Your task to perform on an android device: Go to Yahoo.com Image 0: 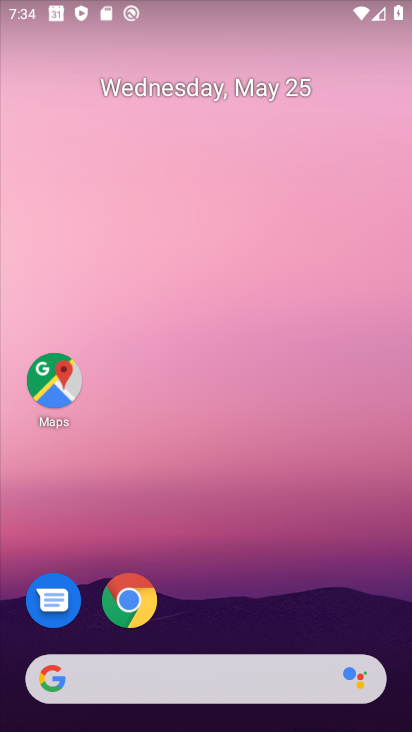
Step 0: drag from (300, 590) to (304, 153)
Your task to perform on an android device: Go to Yahoo.com Image 1: 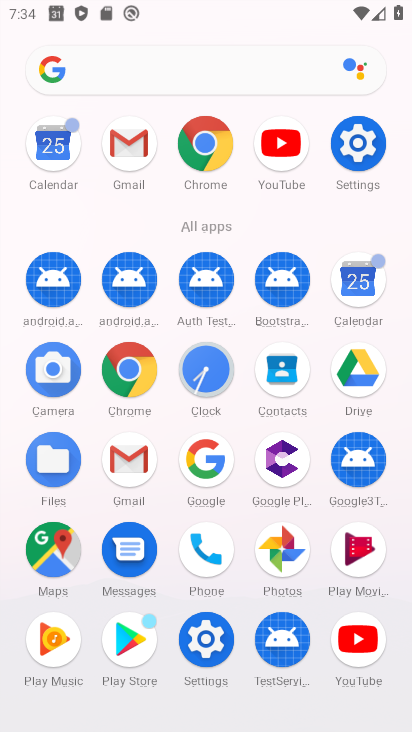
Step 1: click (118, 367)
Your task to perform on an android device: Go to Yahoo.com Image 2: 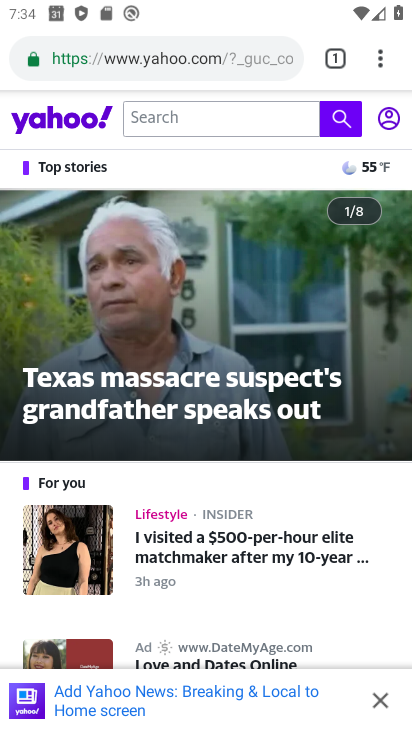
Step 2: task complete